Your task to perform on an android device: open a new tab in the chrome app Image 0: 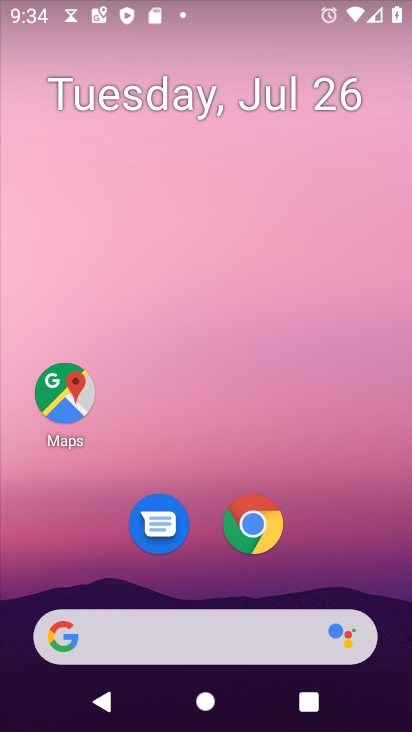
Step 0: click (268, 529)
Your task to perform on an android device: open a new tab in the chrome app Image 1: 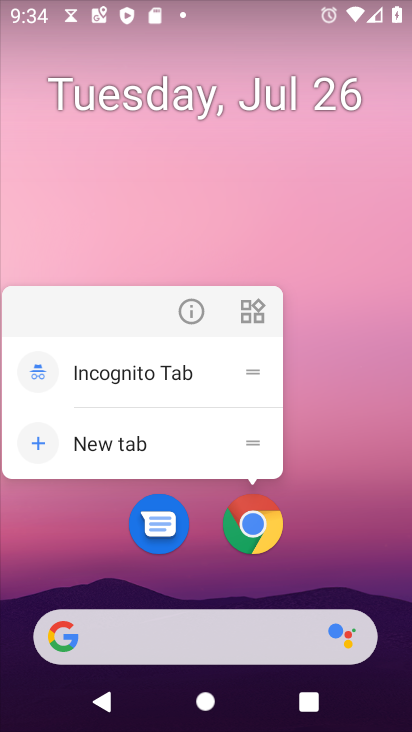
Step 1: click (249, 526)
Your task to perform on an android device: open a new tab in the chrome app Image 2: 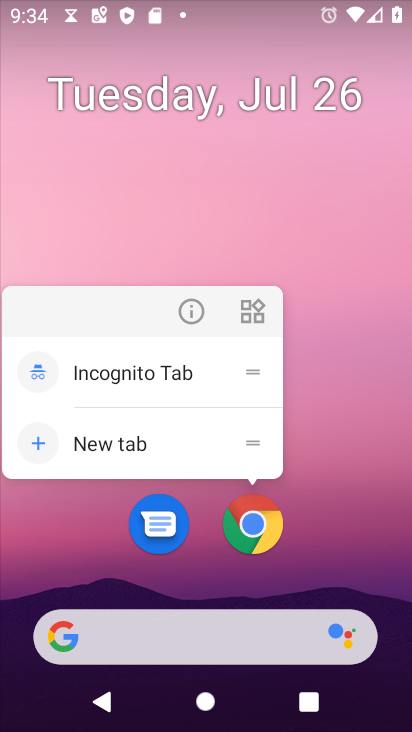
Step 2: click (261, 518)
Your task to perform on an android device: open a new tab in the chrome app Image 3: 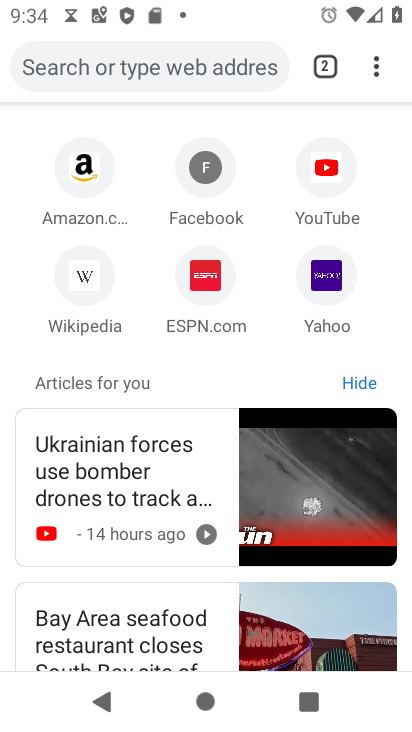
Step 3: task complete